Your task to perform on an android device: Go to Google maps Image 0: 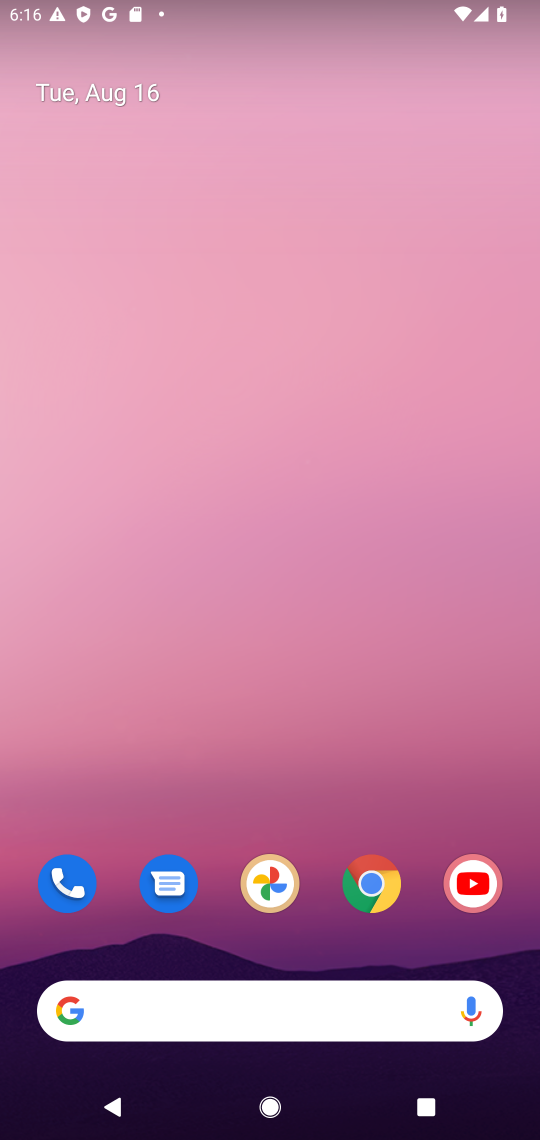
Step 0: drag from (241, 1021) to (340, 154)
Your task to perform on an android device: Go to Google maps Image 1: 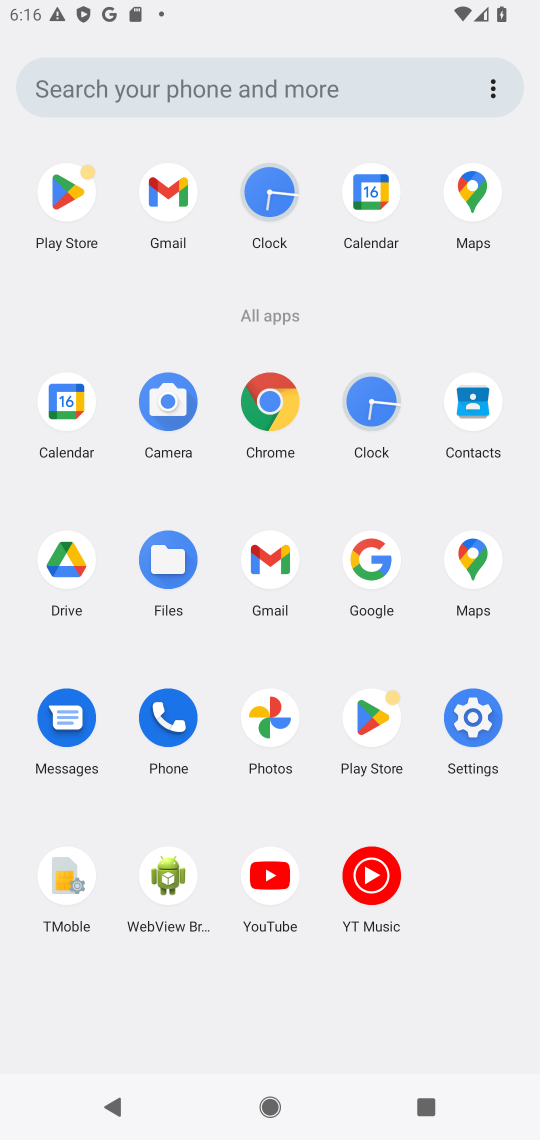
Step 1: click (476, 188)
Your task to perform on an android device: Go to Google maps Image 2: 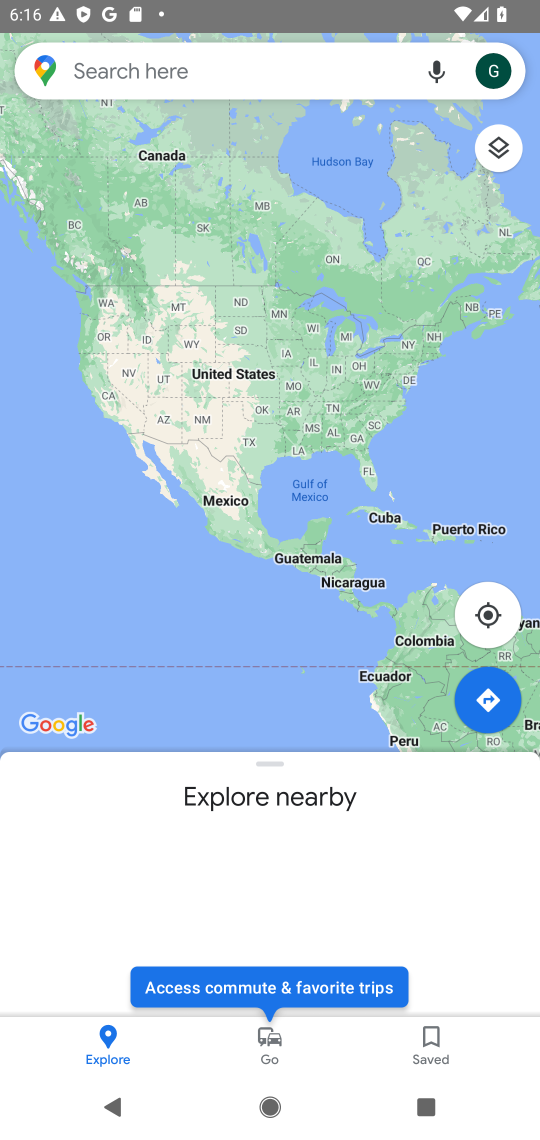
Step 2: task complete